Your task to perform on an android device: Check the news Image 0: 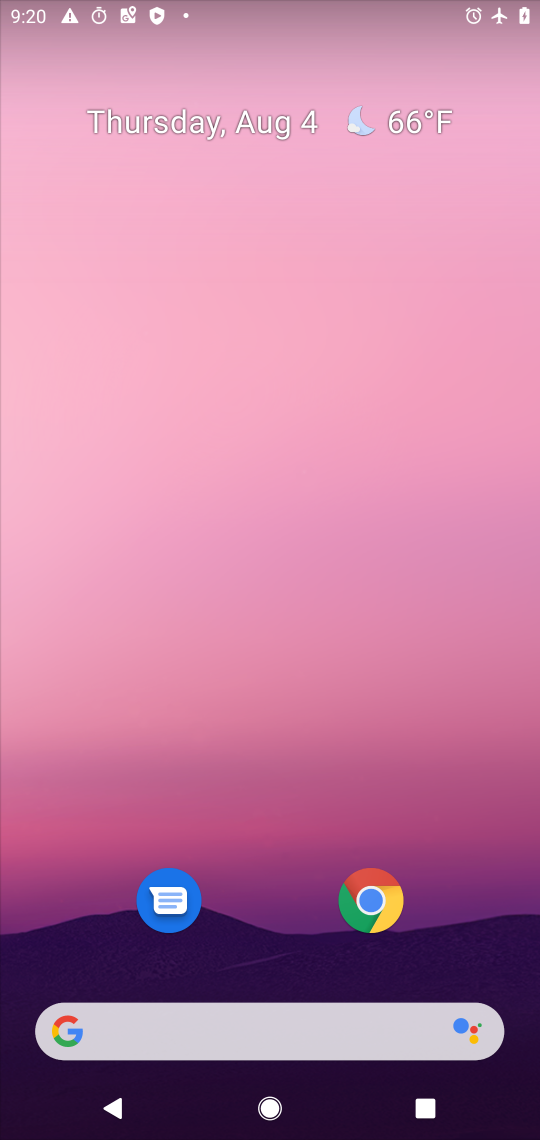
Step 0: drag from (228, 1032) to (213, 116)
Your task to perform on an android device: Check the news Image 1: 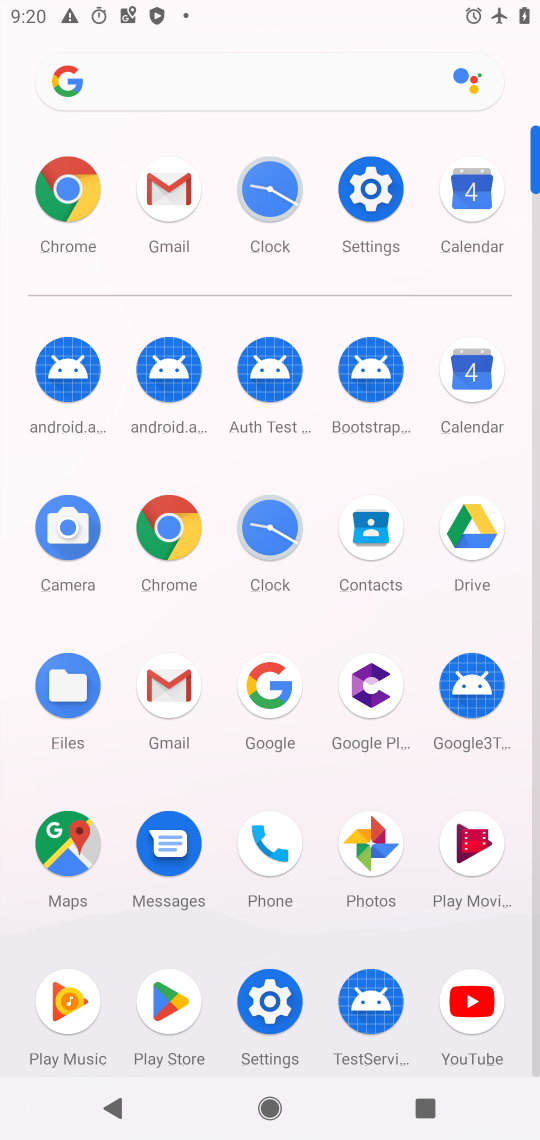
Step 1: click (270, 685)
Your task to perform on an android device: Check the news Image 2: 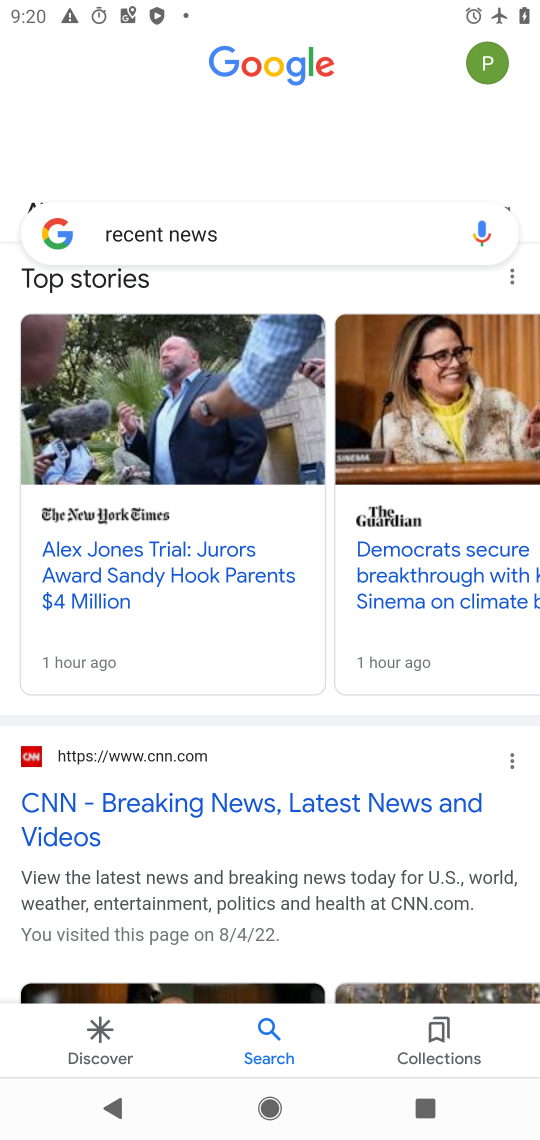
Step 2: click (325, 249)
Your task to perform on an android device: Check the news Image 3: 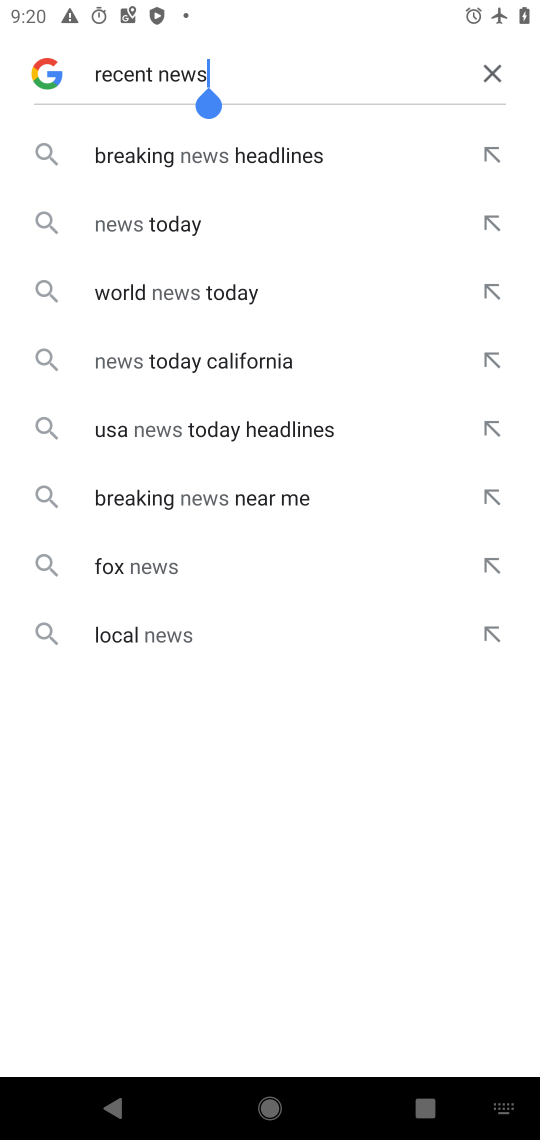
Step 3: click (489, 73)
Your task to perform on an android device: Check the news Image 4: 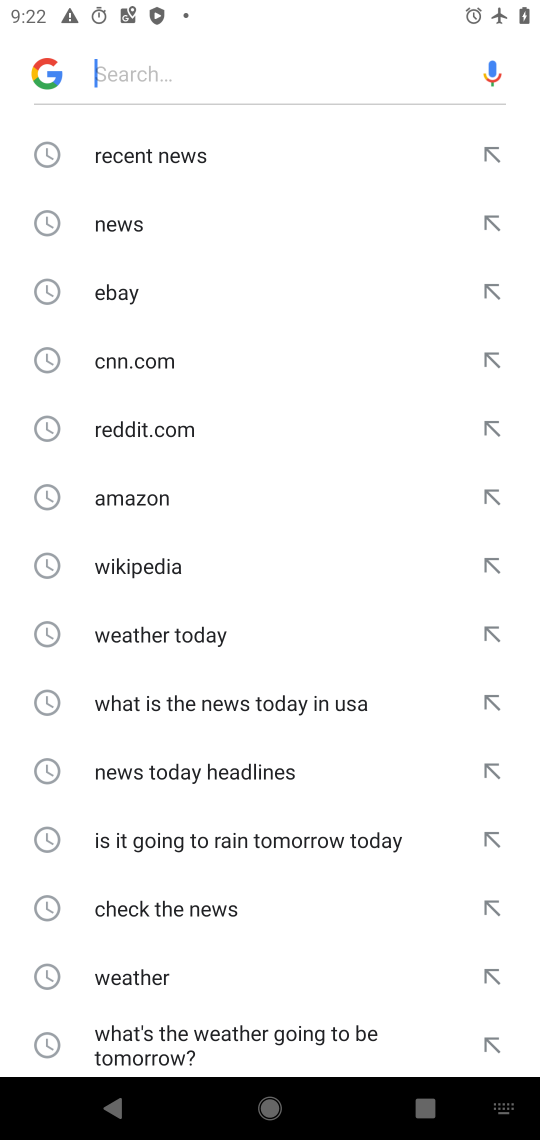
Step 4: type "check  the  news"
Your task to perform on an android device: Check the news Image 5: 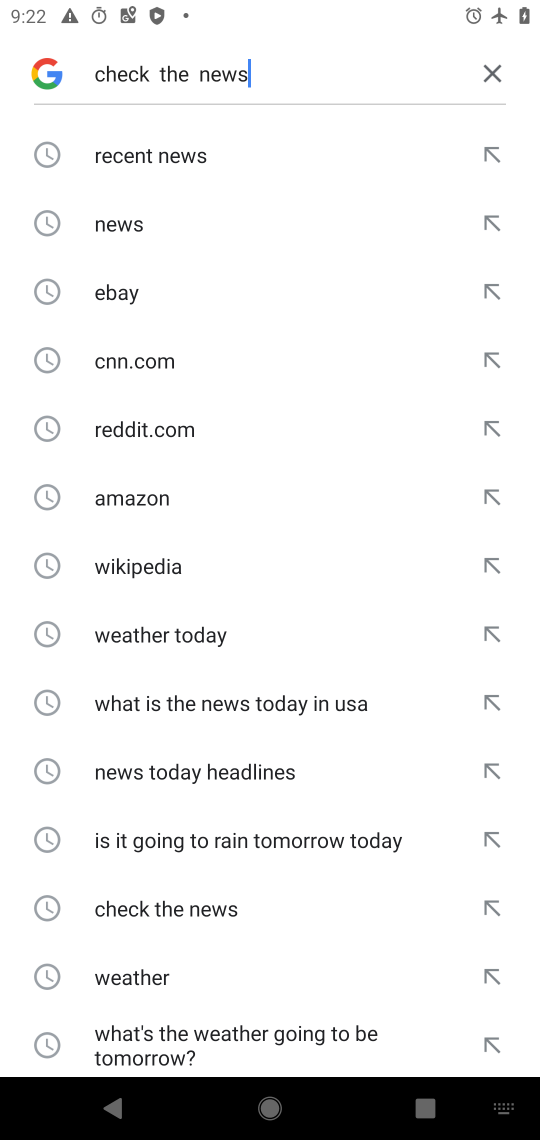
Step 5: type ""
Your task to perform on an android device: Check the news Image 6: 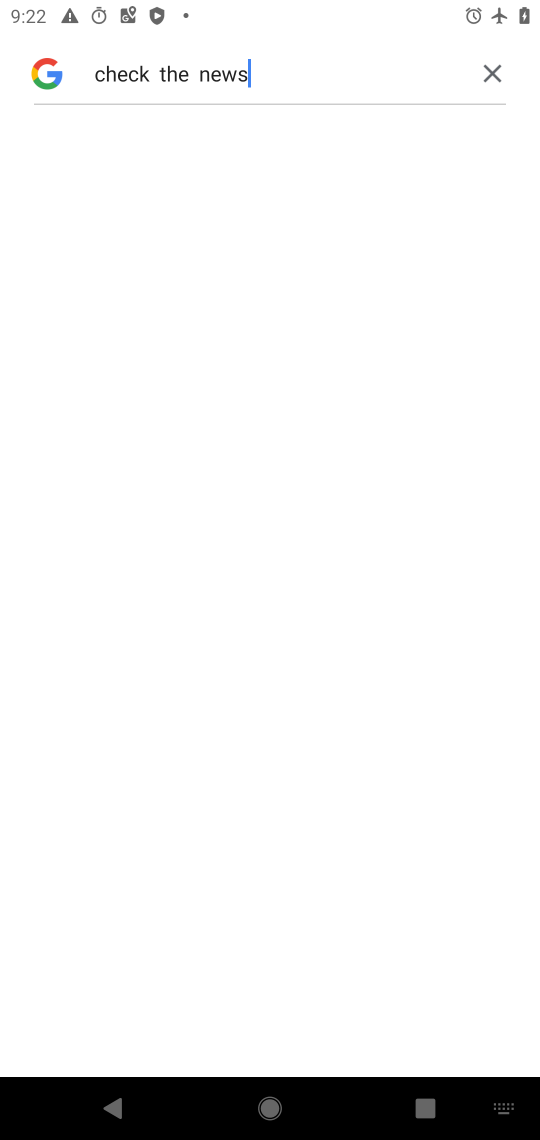
Step 6: task complete